Your task to perform on an android device: all mails in gmail Image 0: 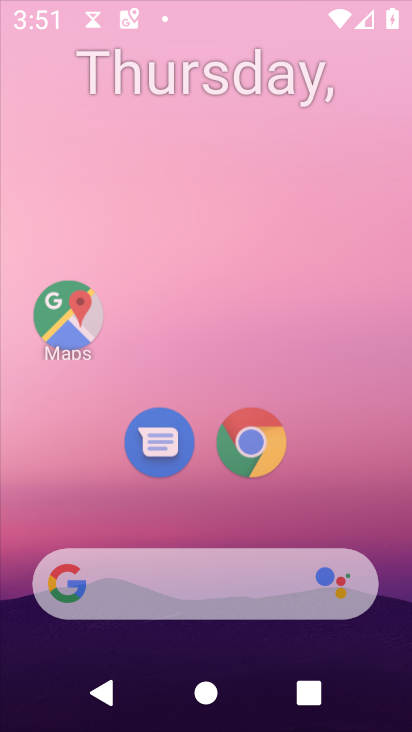
Step 0: drag from (304, 602) to (320, 17)
Your task to perform on an android device: all mails in gmail Image 1: 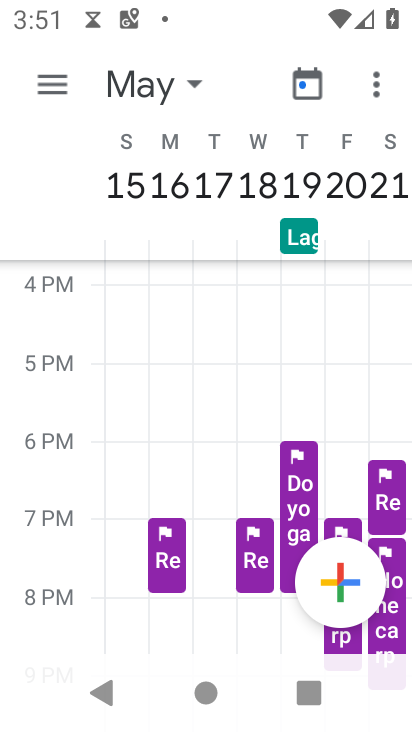
Step 1: press home button
Your task to perform on an android device: all mails in gmail Image 2: 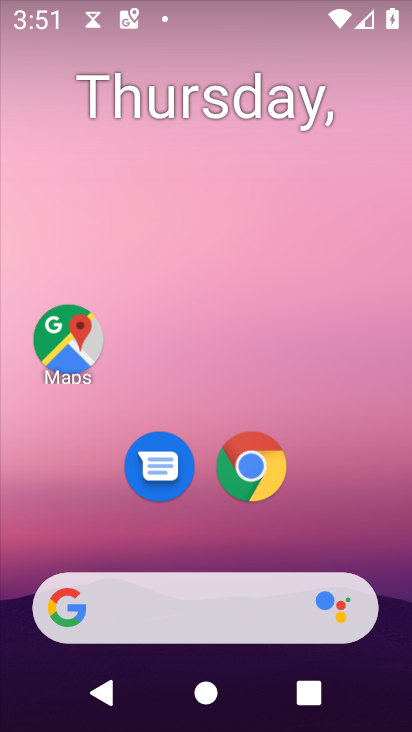
Step 2: drag from (287, 573) to (376, 5)
Your task to perform on an android device: all mails in gmail Image 3: 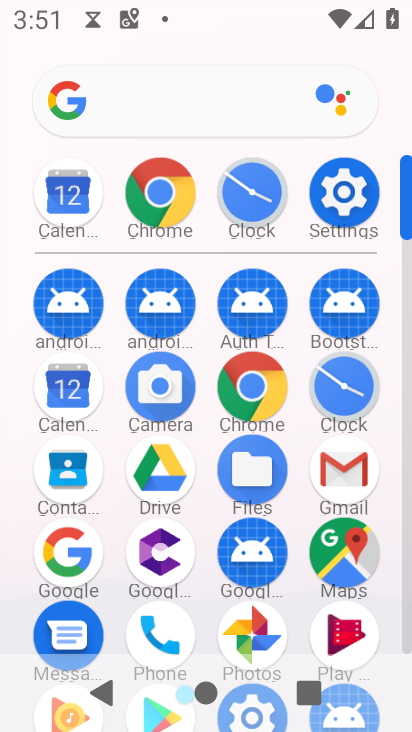
Step 3: click (349, 481)
Your task to perform on an android device: all mails in gmail Image 4: 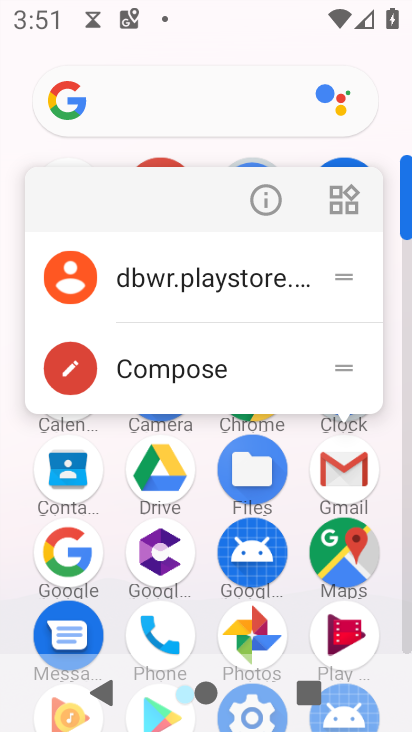
Step 4: click (382, 495)
Your task to perform on an android device: all mails in gmail Image 5: 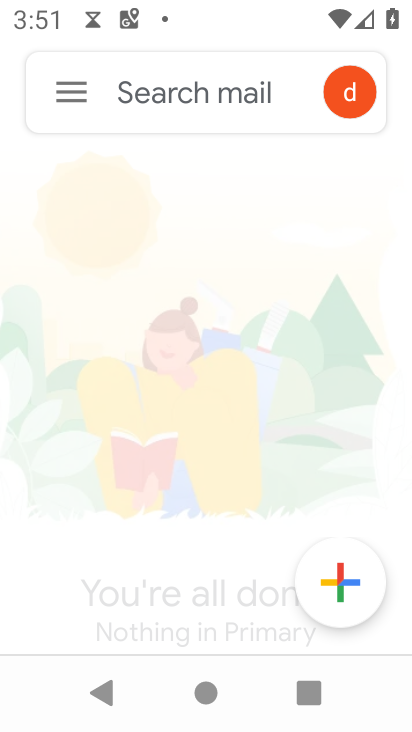
Step 5: click (73, 99)
Your task to perform on an android device: all mails in gmail Image 6: 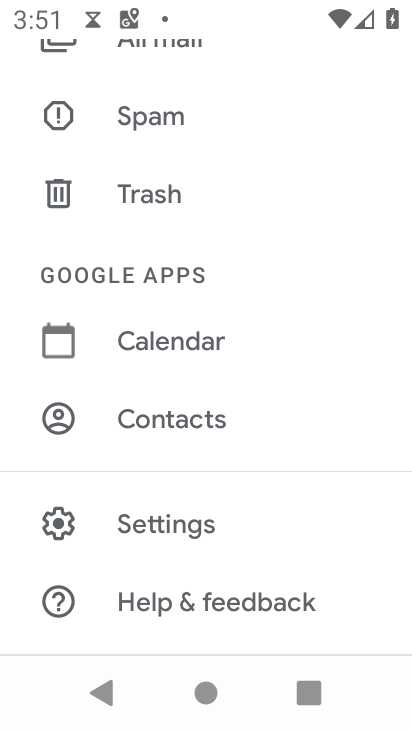
Step 6: drag from (234, 239) to (323, 716)
Your task to perform on an android device: all mails in gmail Image 7: 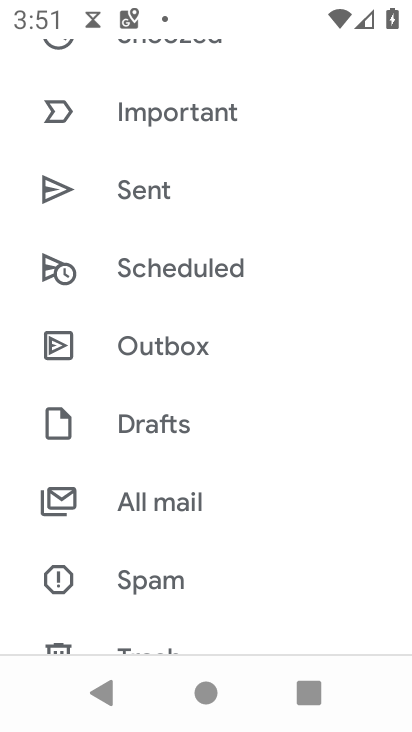
Step 7: click (218, 503)
Your task to perform on an android device: all mails in gmail Image 8: 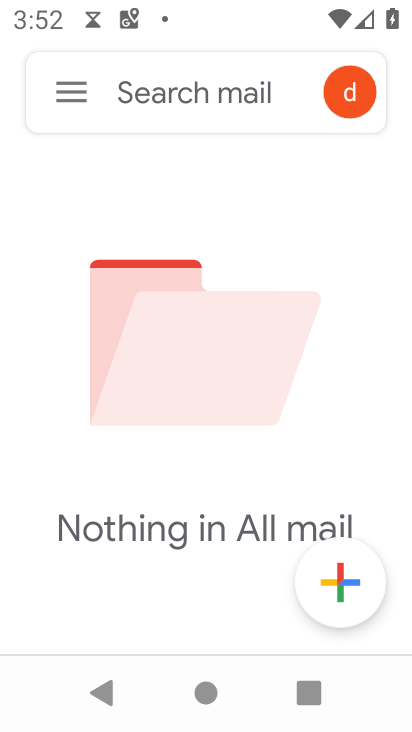
Step 8: task complete